Your task to perform on an android device: What is the capital of Canada? Image 0: 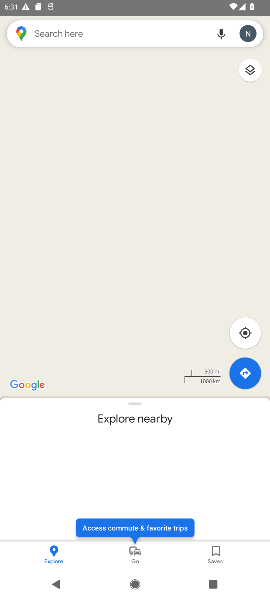
Step 0: press home button
Your task to perform on an android device: What is the capital of Canada? Image 1: 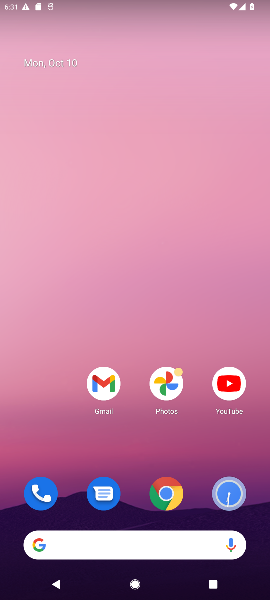
Step 1: click (127, 541)
Your task to perform on an android device: What is the capital of Canada? Image 2: 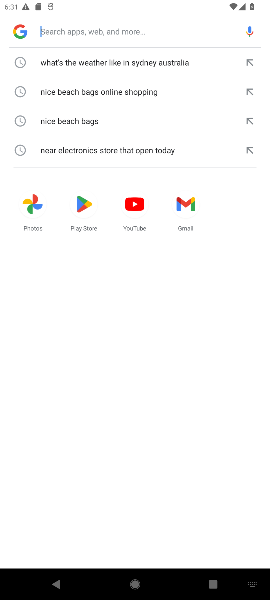
Step 2: type "What is the capital of Canada?"
Your task to perform on an android device: What is the capital of Canada? Image 3: 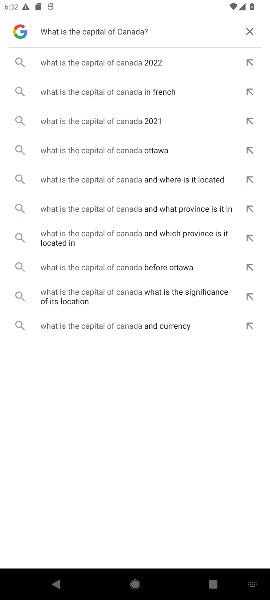
Step 3: click (121, 154)
Your task to perform on an android device: What is the capital of Canada? Image 4: 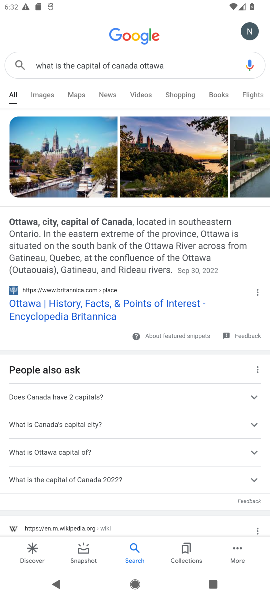
Step 4: task complete